Your task to perform on an android device: turn notification dots off Image 0: 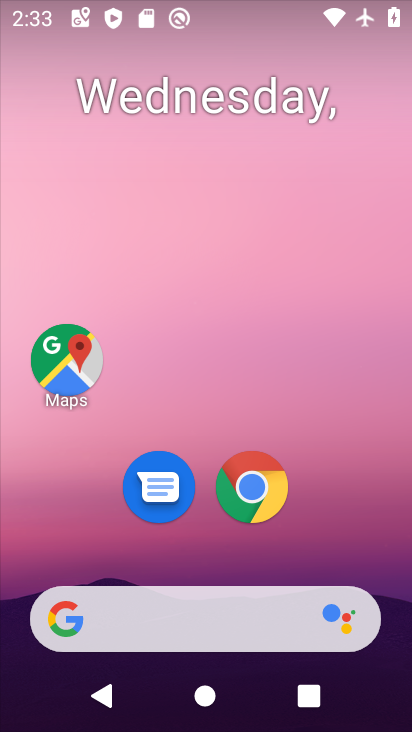
Step 0: drag from (327, 514) to (300, 111)
Your task to perform on an android device: turn notification dots off Image 1: 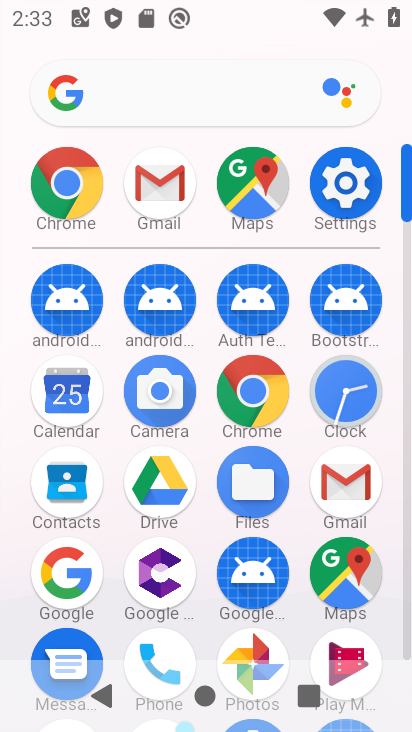
Step 1: click (350, 169)
Your task to perform on an android device: turn notification dots off Image 2: 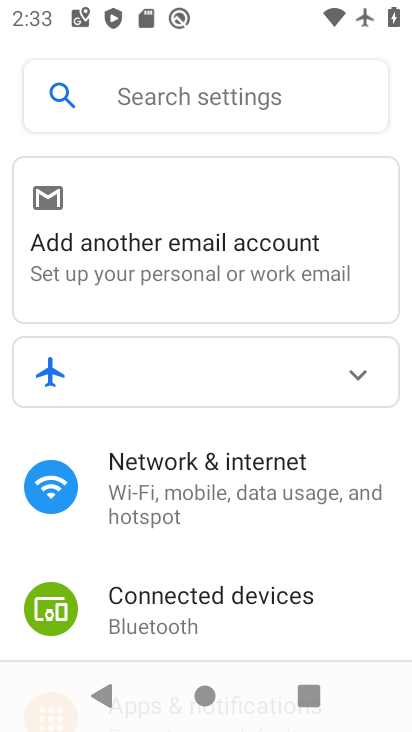
Step 2: drag from (264, 590) to (258, 246)
Your task to perform on an android device: turn notification dots off Image 3: 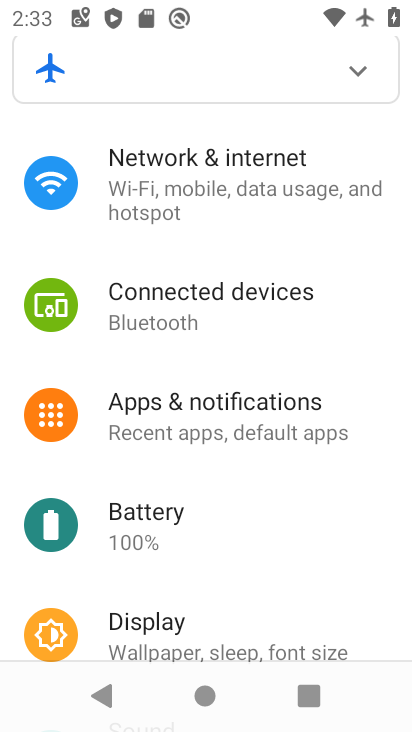
Step 3: click (205, 427)
Your task to perform on an android device: turn notification dots off Image 4: 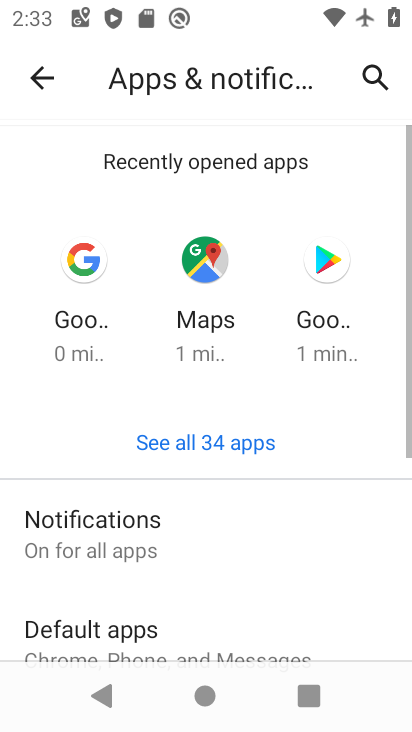
Step 4: click (80, 536)
Your task to perform on an android device: turn notification dots off Image 5: 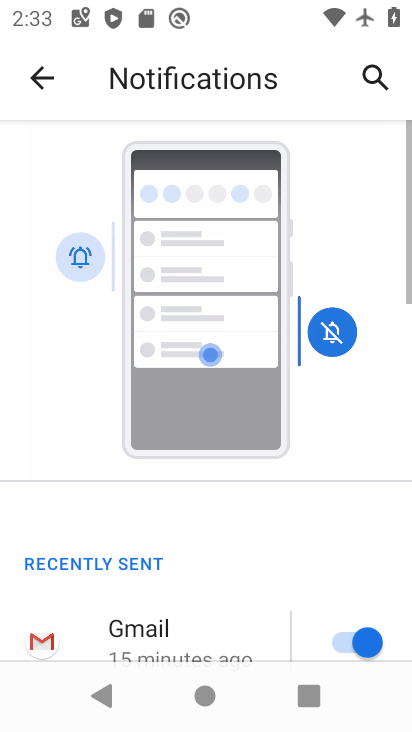
Step 5: drag from (119, 577) to (150, 147)
Your task to perform on an android device: turn notification dots off Image 6: 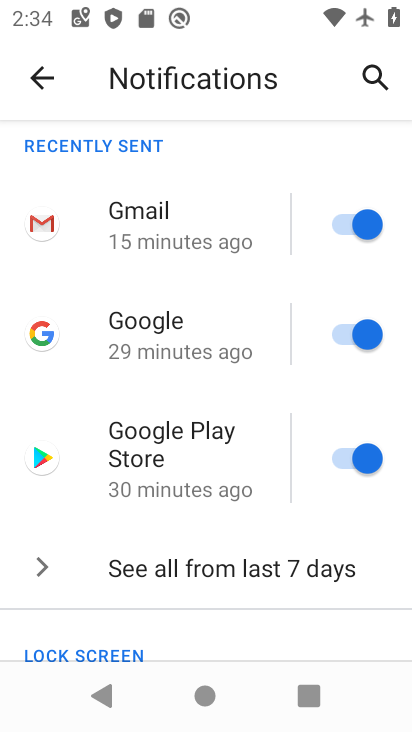
Step 6: drag from (182, 539) to (272, 116)
Your task to perform on an android device: turn notification dots off Image 7: 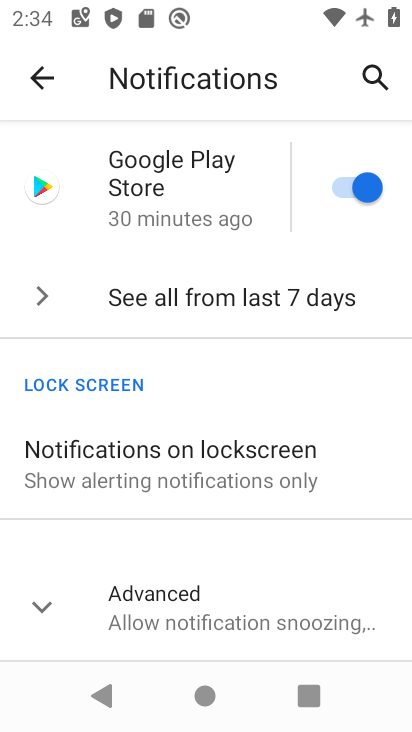
Step 7: click (191, 591)
Your task to perform on an android device: turn notification dots off Image 8: 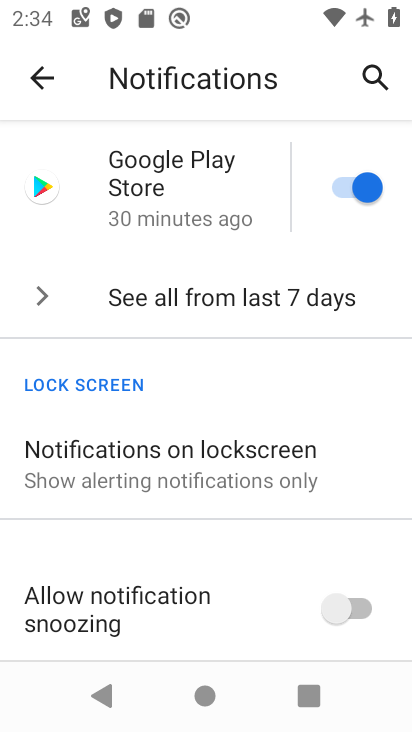
Step 8: drag from (178, 616) to (211, 224)
Your task to perform on an android device: turn notification dots off Image 9: 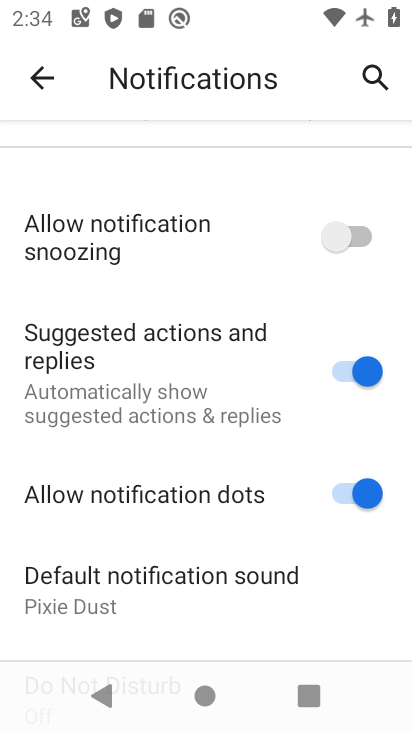
Step 9: click (329, 510)
Your task to perform on an android device: turn notification dots off Image 10: 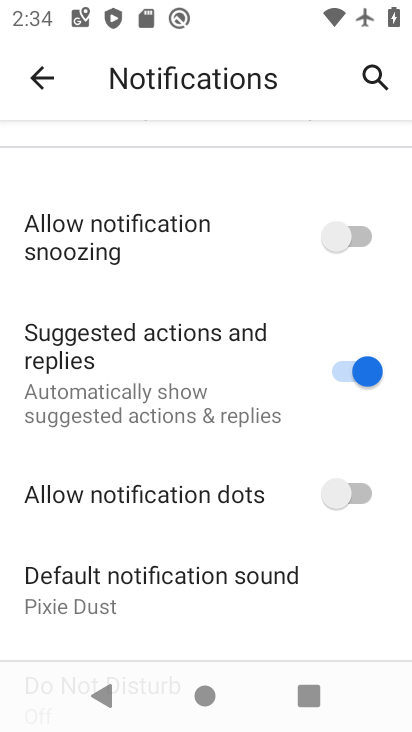
Step 10: task complete